Your task to perform on an android device: show emergency info Image 0: 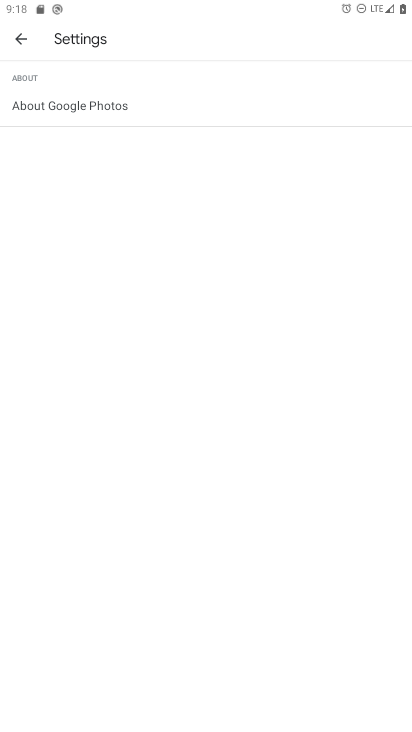
Step 0: press home button
Your task to perform on an android device: show emergency info Image 1: 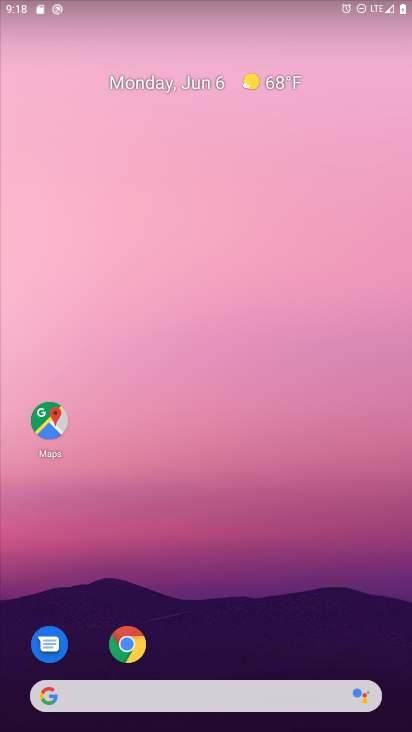
Step 1: drag from (237, 719) to (325, 205)
Your task to perform on an android device: show emergency info Image 2: 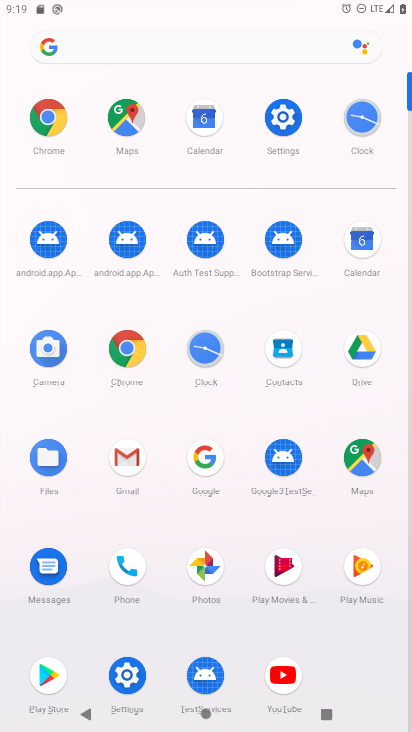
Step 2: click (285, 118)
Your task to perform on an android device: show emergency info Image 3: 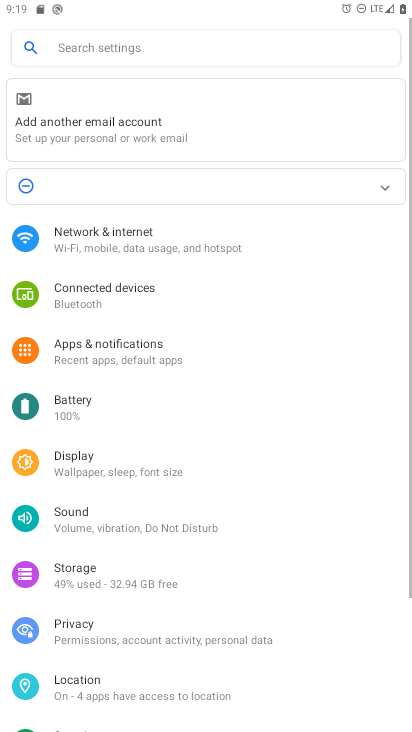
Step 3: click (156, 39)
Your task to perform on an android device: show emergency info Image 4: 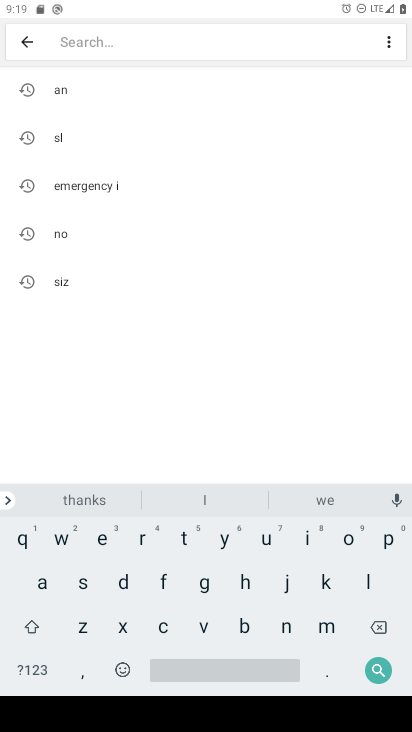
Step 4: click (76, 172)
Your task to perform on an android device: show emergency info Image 5: 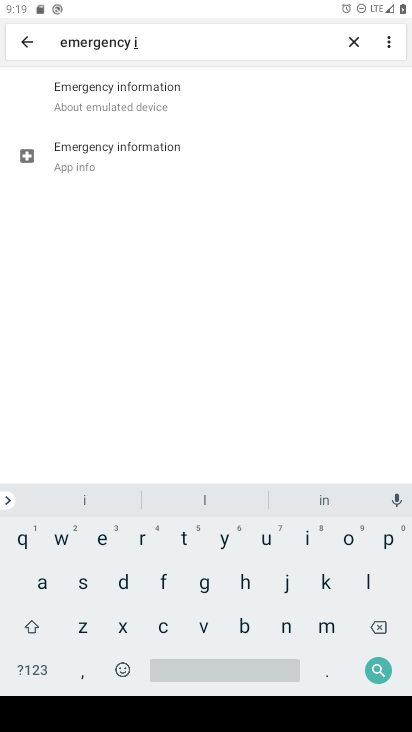
Step 5: click (207, 104)
Your task to perform on an android device: show emergency info Image 6: 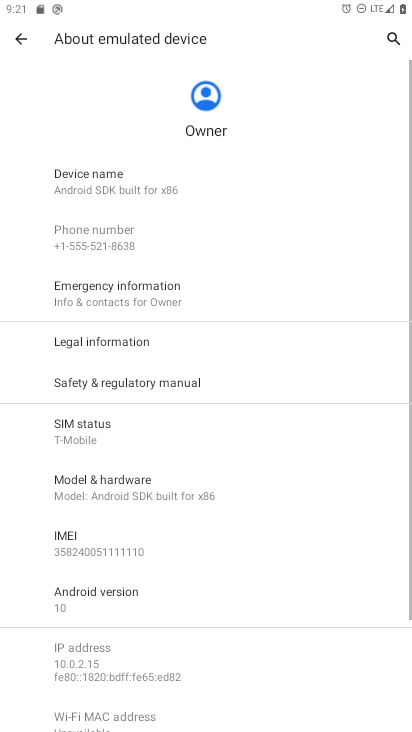
Step 6: task complete